Your task to perform on an android device: open app "Adobe Acrobat Reader" Image 0: 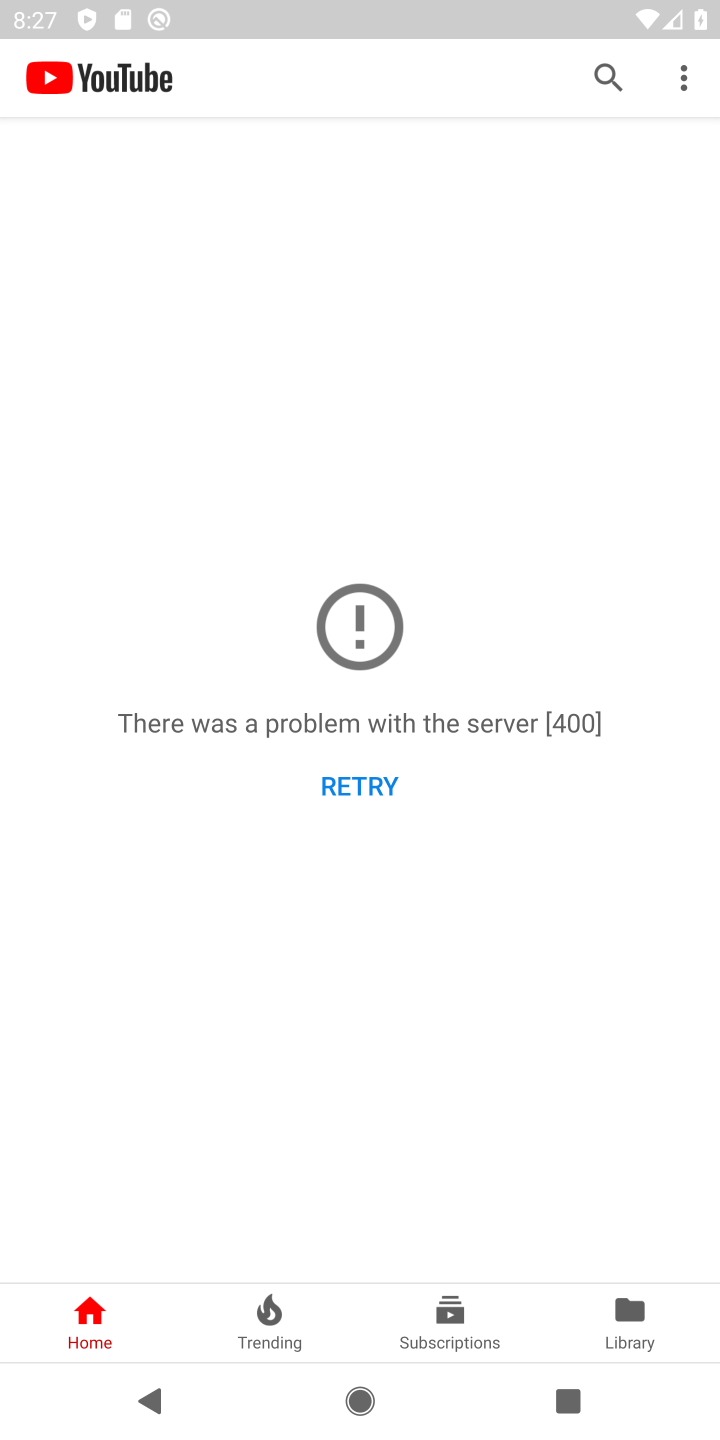
Step 0: press home button
Your task to perform on an android device: open app "Adobe Acrobat Reader" Image 1: 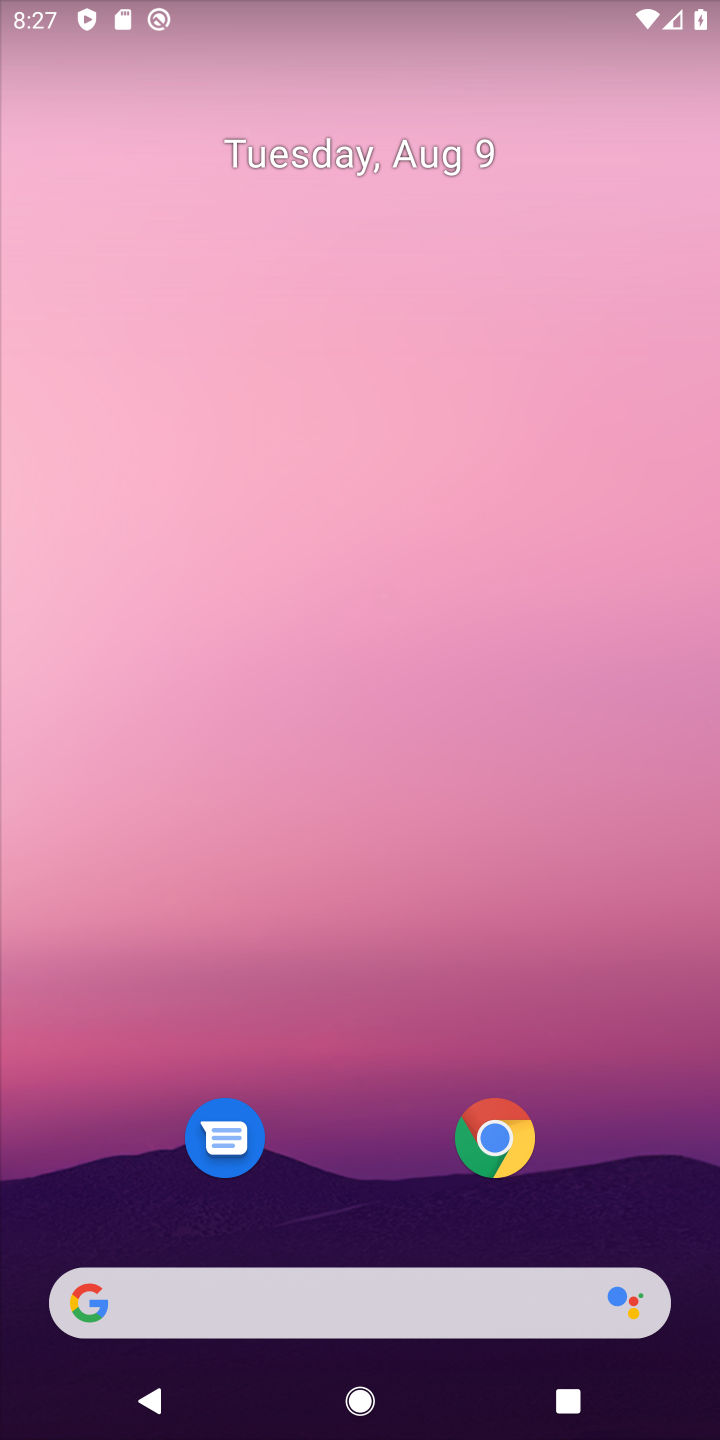
Step 1: drag from (347, 1022) to (372, 384)
Your task to perform on an android device: open app "Adobe Acrobat Reader" Image 2: 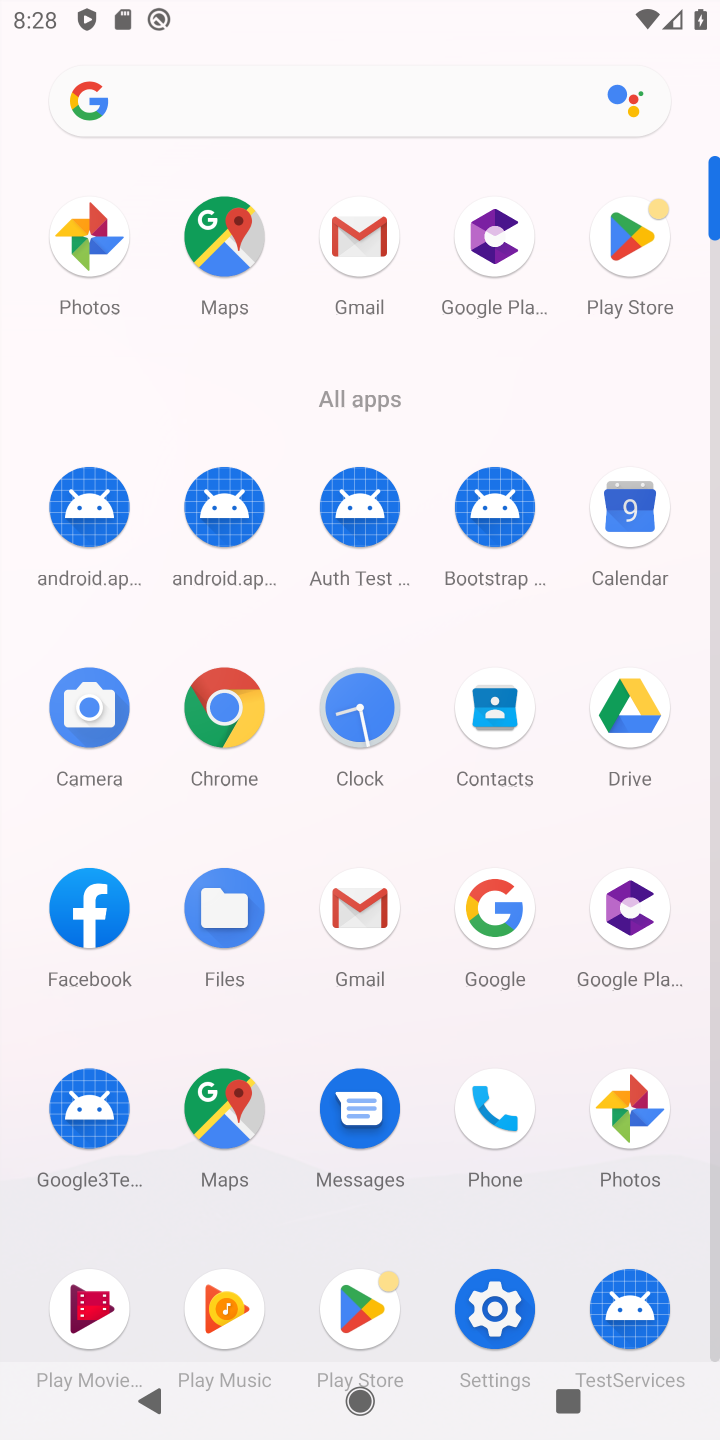
Step 2: click (652, 248)
Your task to perform on an android device: open app "Adobe Acrobat Reader" Image 3: 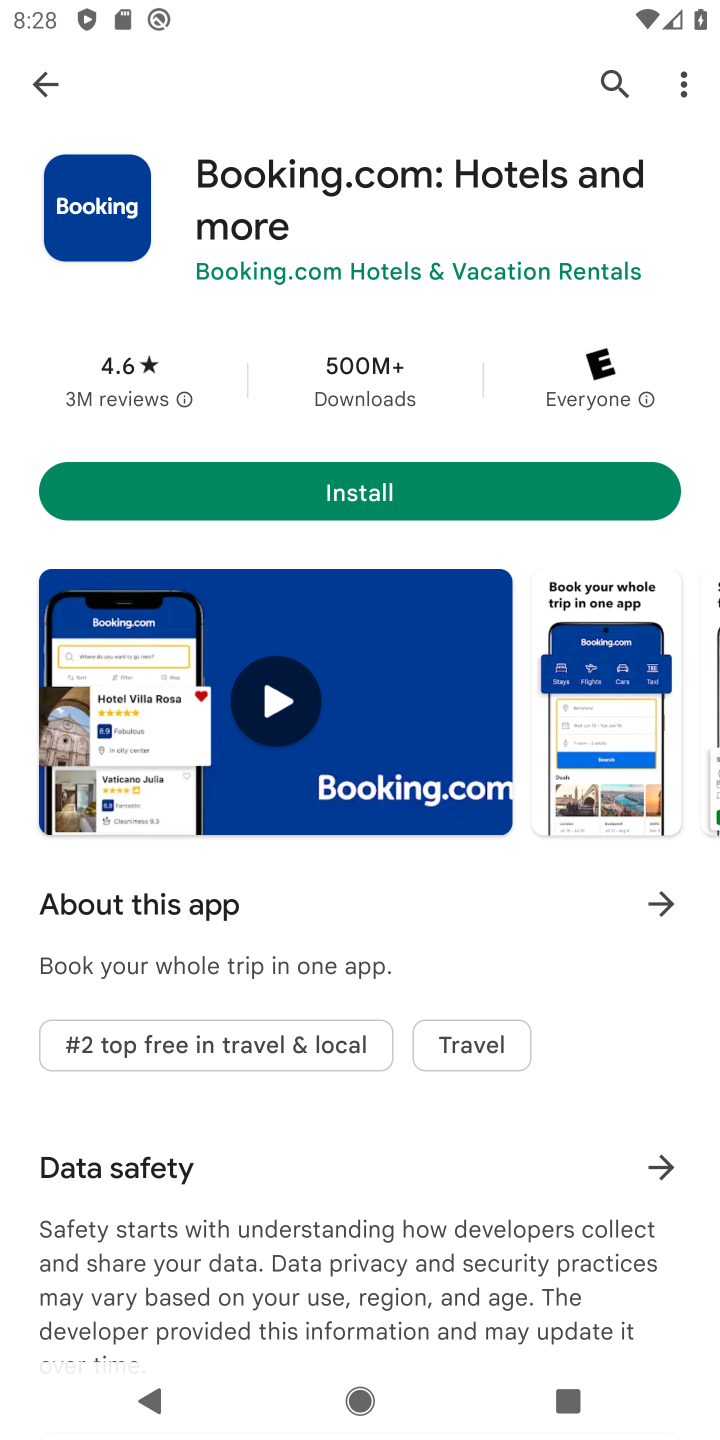
Step 3: click (600, 82)
Your task to perform on an android device: open app "Adobe Acrobat Reader" Image 4: 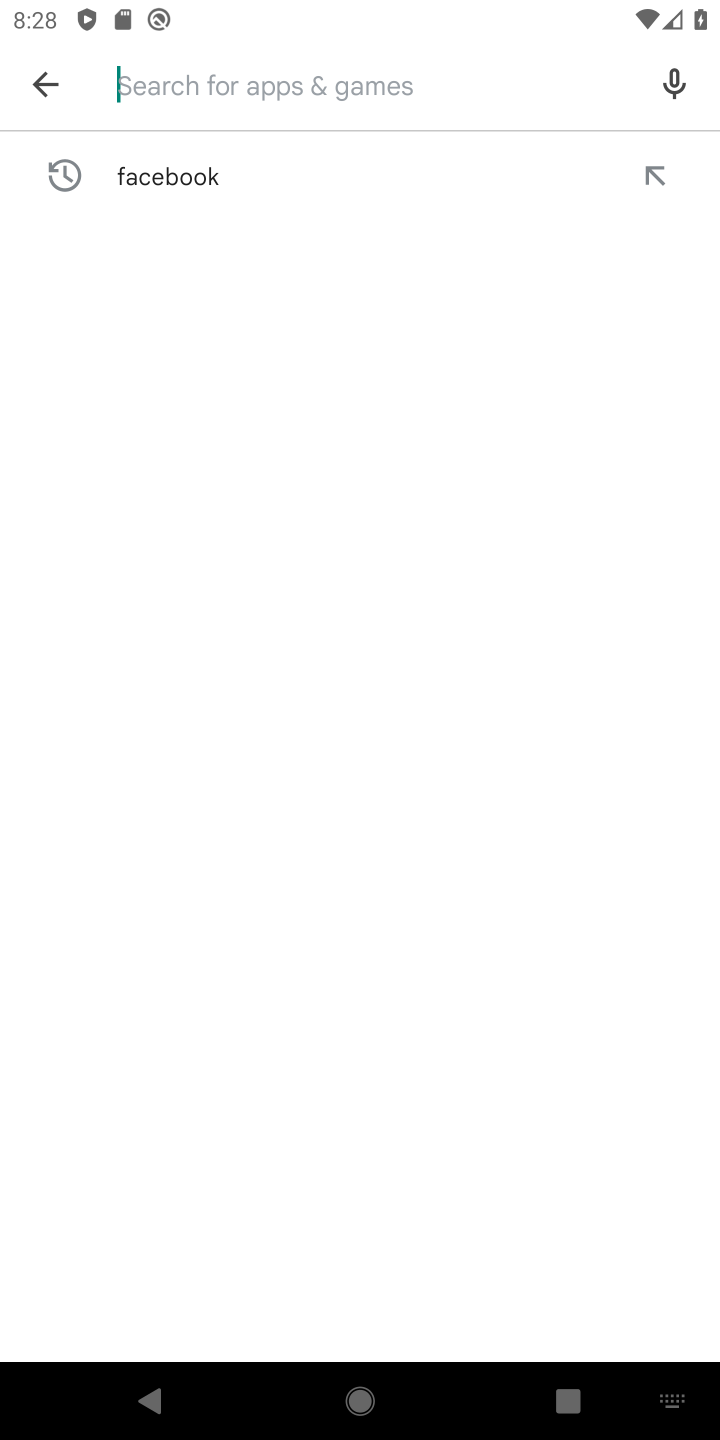
Step 4: type "Adobe Acrobat Reader"
Your task to perform on an android device: open app "Adobe Acrobat Reader" Image 5: 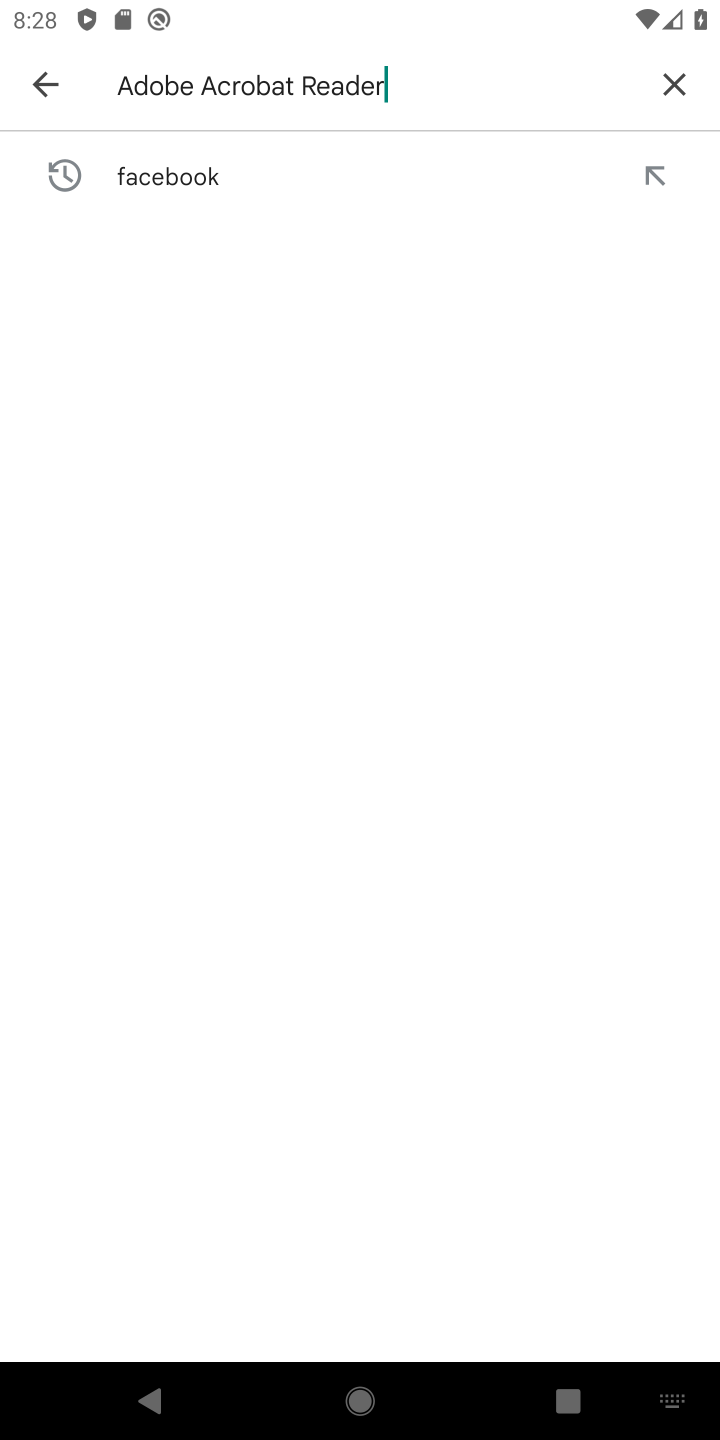
Step 5: type ""
Your task to perform on an android device: open app "Adobe Acrobat Reader" Image 6: 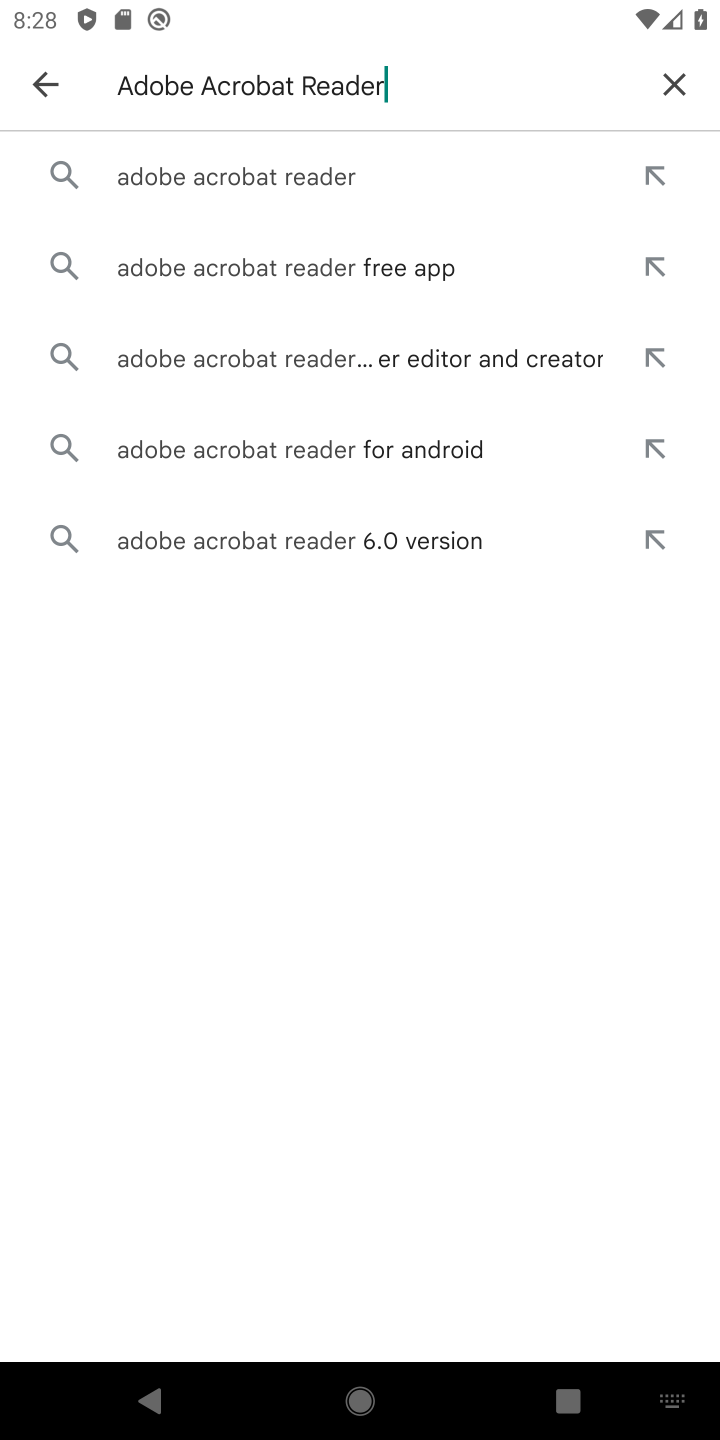
Step 6: click (168, 185)
Your task to perform on an android device: open app "Adobe Acrobat Reader" Image 7: 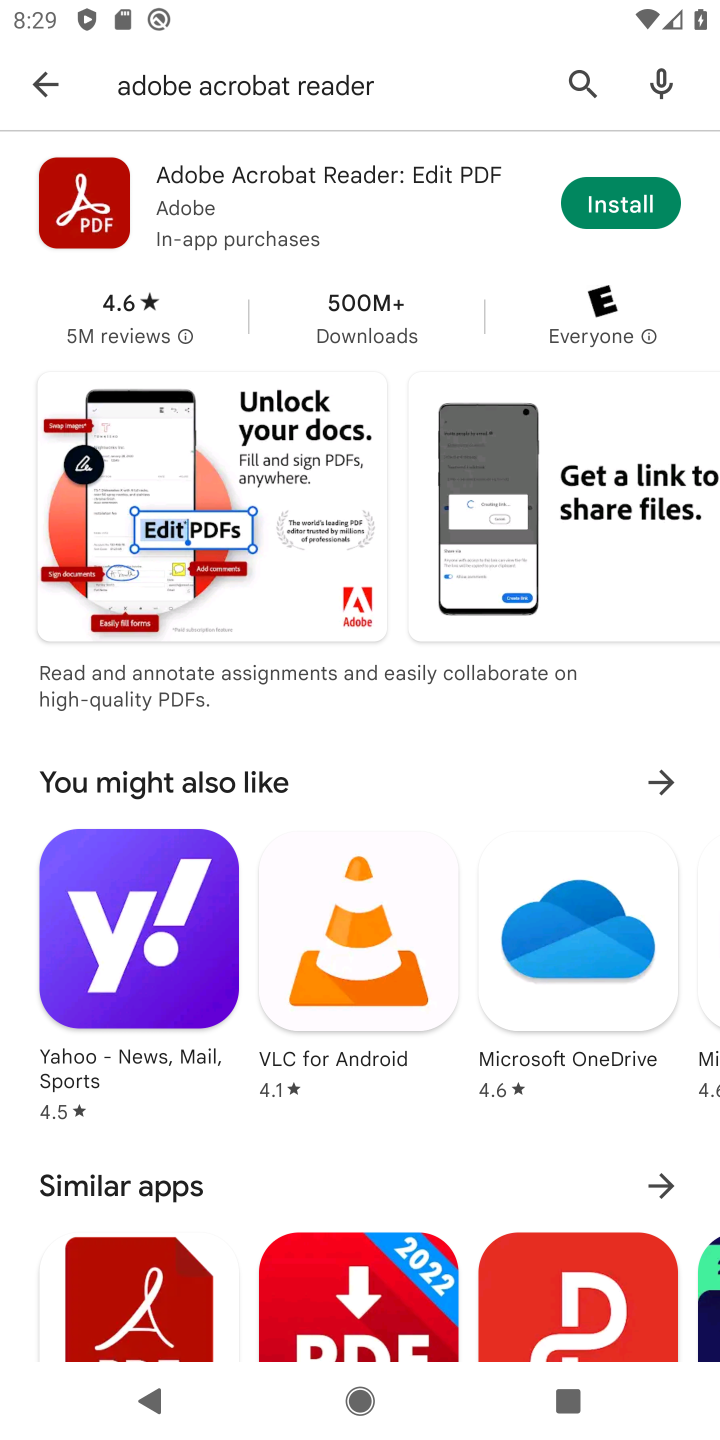
Step 7: task complete